Your task to perform on an android device: toggle show notifications on the lock screen Image 0: 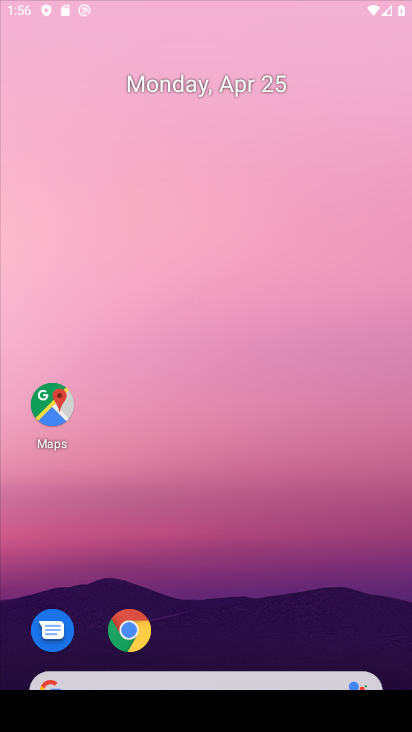
Step 0: click (130, 699)
Your task to perform on an android device: toggle show notifications on the lock screen Image 1: 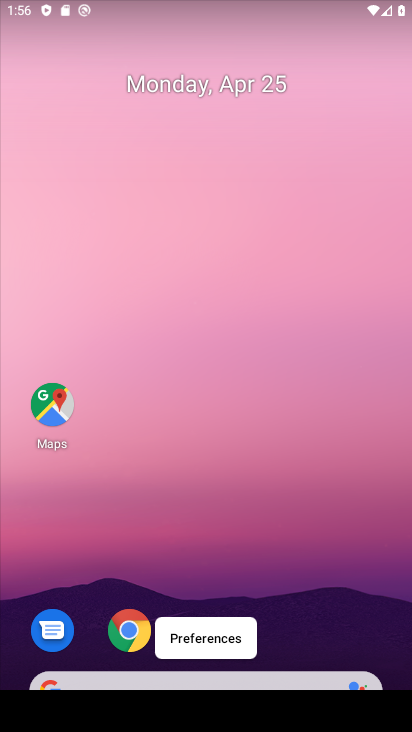
Step 1: drag from (286, 465) to (232, 222)
Your task to perform on an android device: toggle show notifications on the lock screen Image 2: 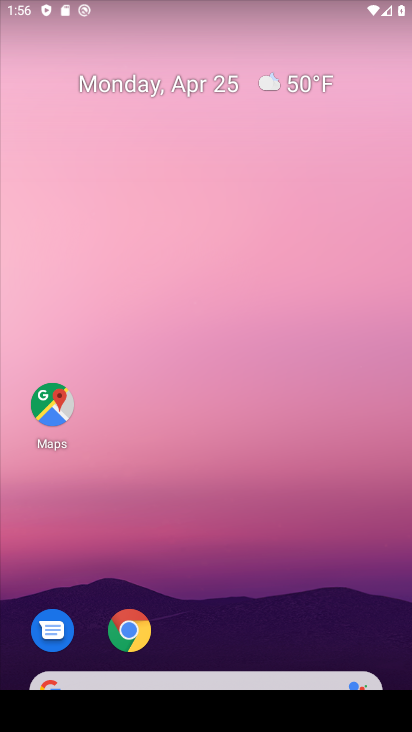
Step 2: drag from (200, 637) to (214, 114)
Your task to perform on an android device: toggle show notifications on the lock screen Image 3: 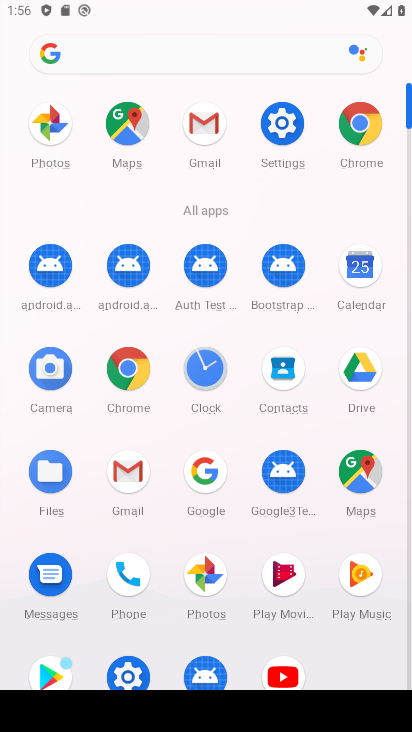
Step 3: click (289, 132)
Your task to perform on an android device: toggle show notifications on the lock screen Image 4: 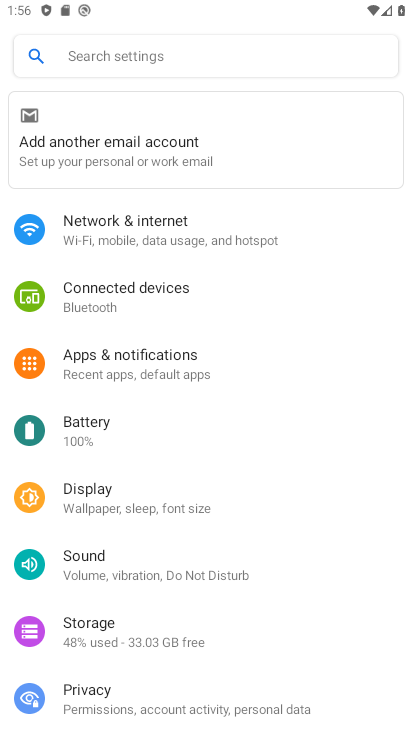
Step 4: click (138, 365)
Your task to perform on an android device: toggle show notifications on the lock screen Image 5: 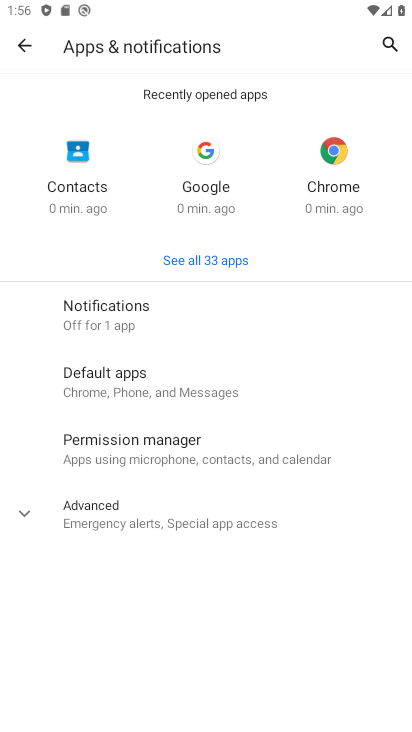
Step 5: click (127, 336)
Your task to perform on an android device: toggle show notifications on the lock screen Image 6: 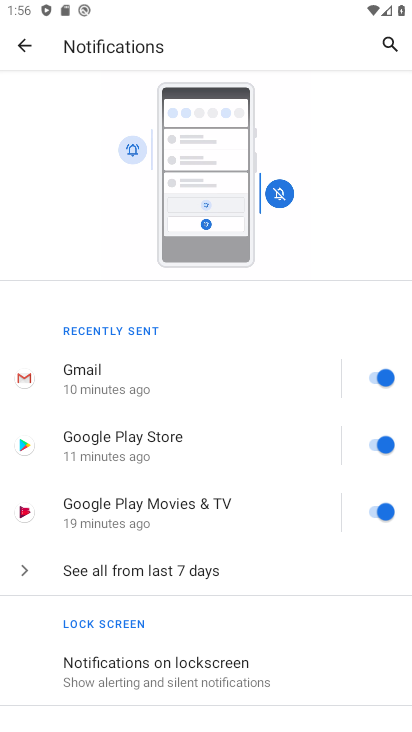
Step 6: drag from (148, 664) to (253, 252)
Your task to perform on an android device: toggle show notifications on the lock screen Image 7: 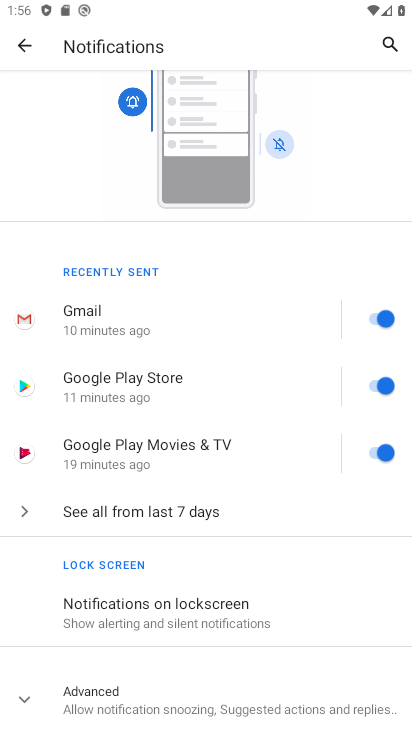
Step 7: click (136, 616)
Your task to perform on an android device: toggle show notifications on the lock screen Image 8: 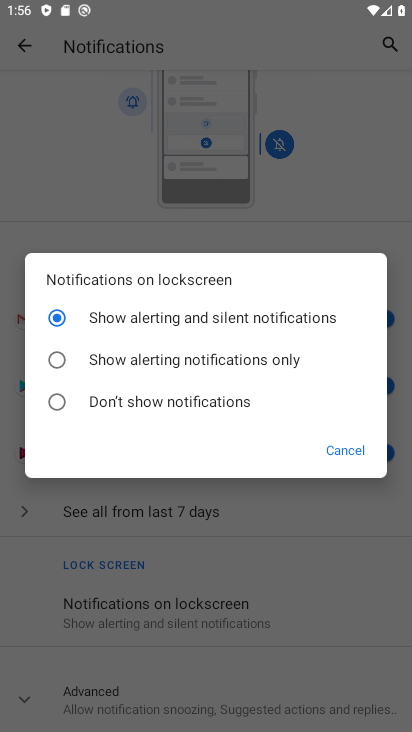
Step 8: task complete